Your task to perform on an android device: Show me productivity apps on the Play Store Image 0: 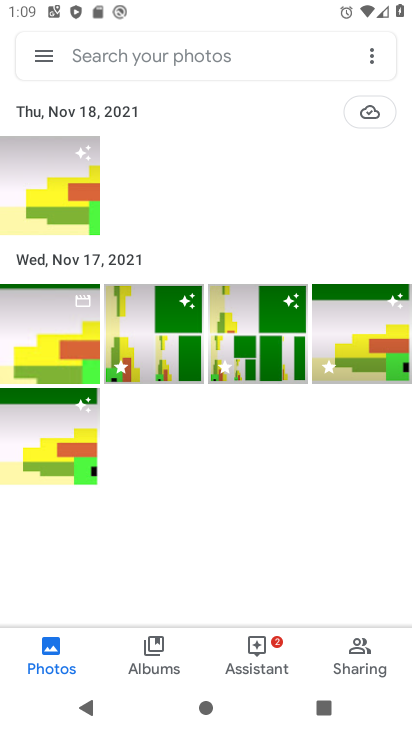
Step 0: press home button
Your task to perform on an android device: Show me productivity apps on the Play Store Image 1: 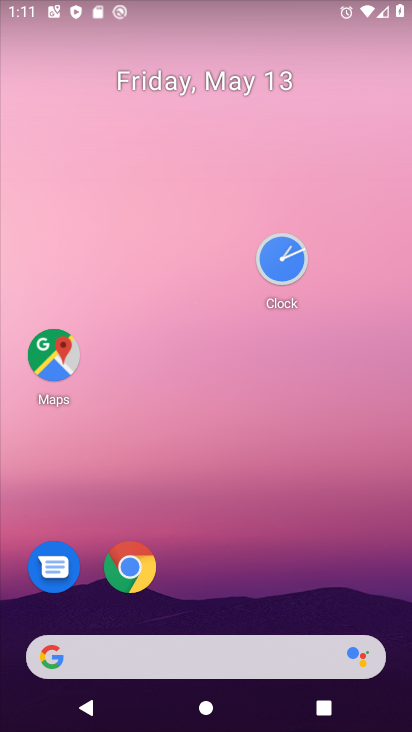
Step 1: drag from (210, 599) to (191, 78)
Your task to perform on an android device: Show me productivity apps on the Play Store Image 2: 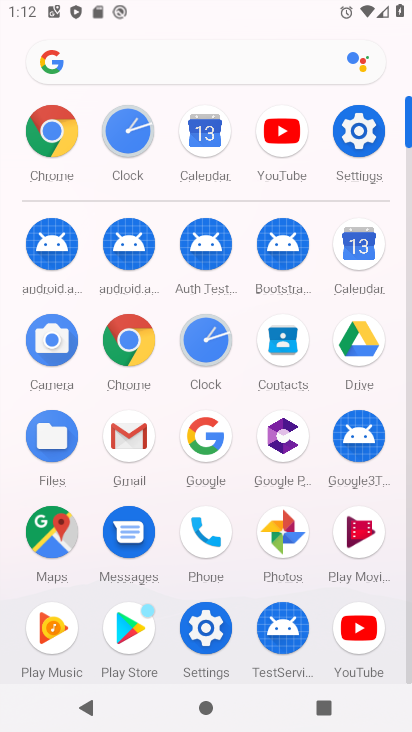
Step 2: click (144, 622)
Your task to perform on an android device: Show me productivity apps on the Play Store Image 3: 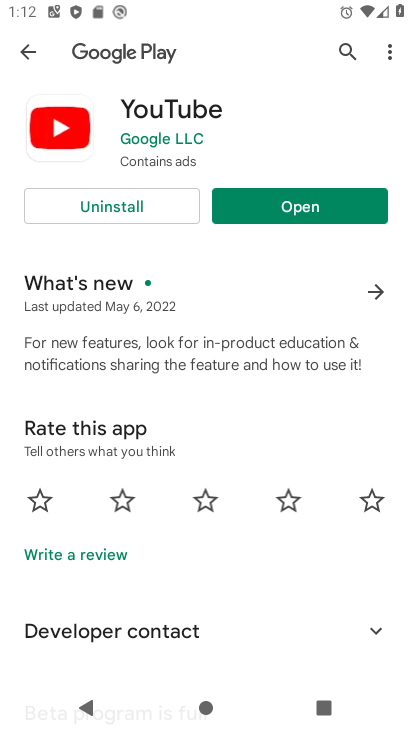
Step 3: click (248, 212)
Your task to perform on an android device: Show me productivity apps on the Play Store Image 4: 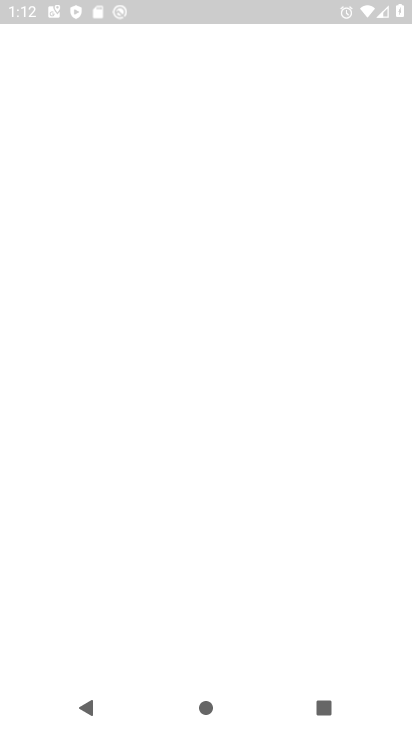
Step 4: click (93, 703)
Your task to perform on an android device: Show me productivity apps on the Play Store Image 5: 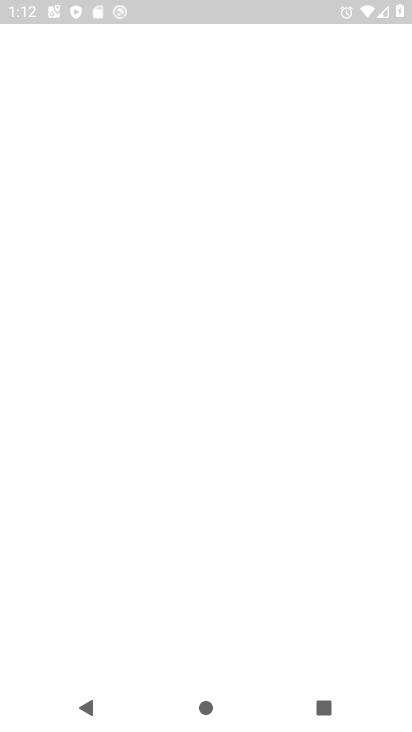
Step 5: click (93, 703)
Your task to perform on an android device: Show me productivity apps on the Play Store Image 6: 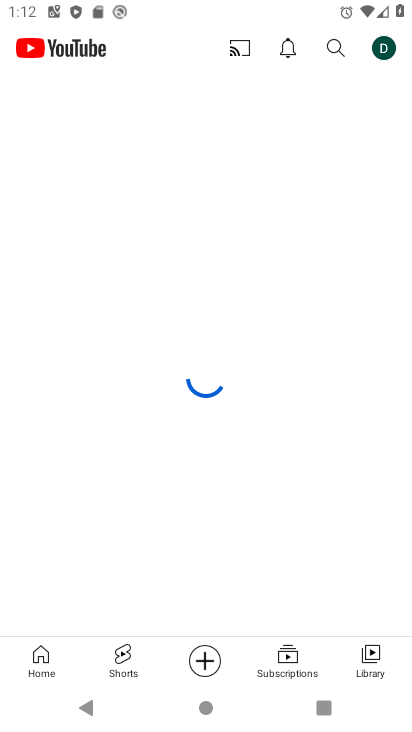
Step 6: press back button
Your task to perform on an android device: Show me productivity apps on the Play Store Image 7: 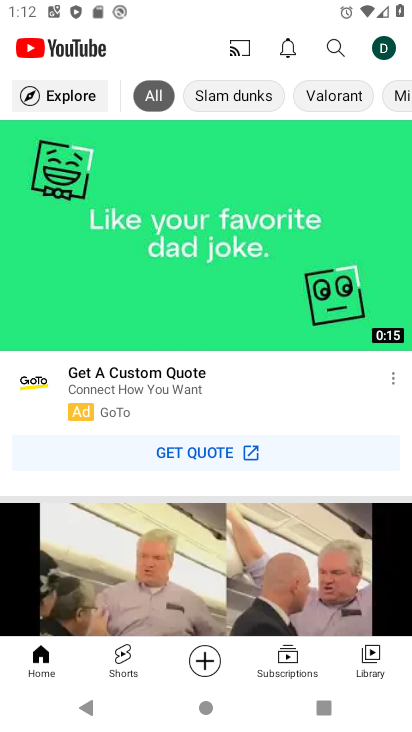
Step 7: press back button
Your task to perform on an android device: Show me productivity apps on the Play Store Image 8: 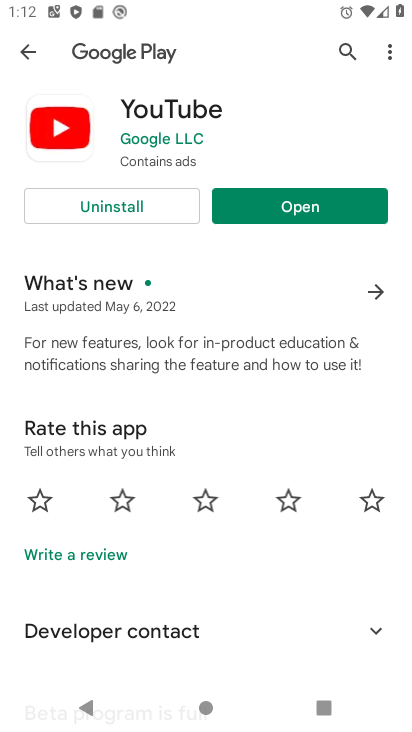
Step 8: click (24, 56)
Your task to perform on an android device: Show me productivity apps on the Play Store Image 9: 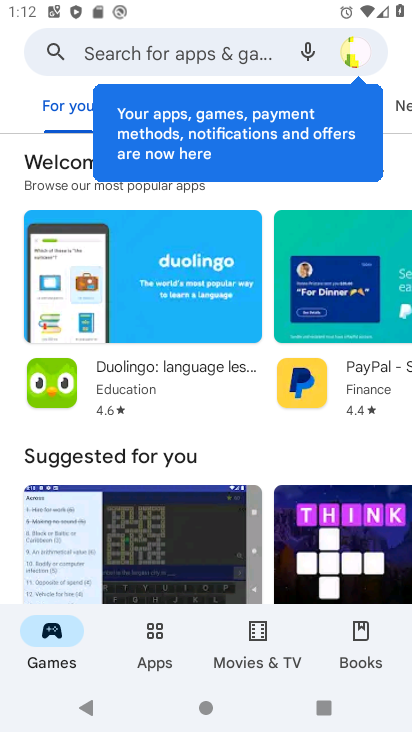
Step 9: click (149, 629)
Your task to perform on an android device: Show me productivity apps on the Play Store Image 10: 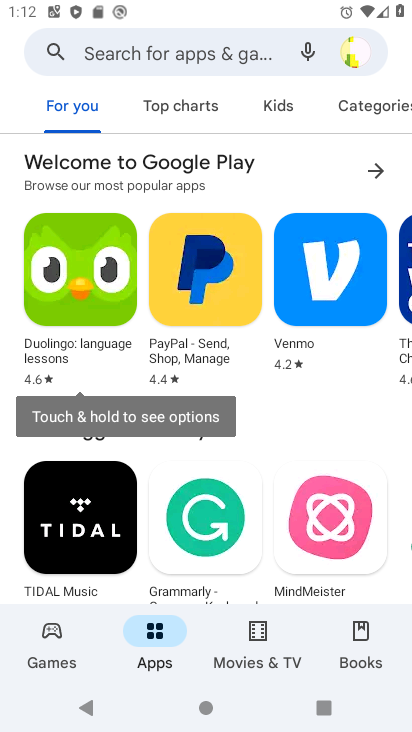
Step 10: click (179, 107)
Your task to perform on an android device: Show me productivity apps on the Play Store Image 11: 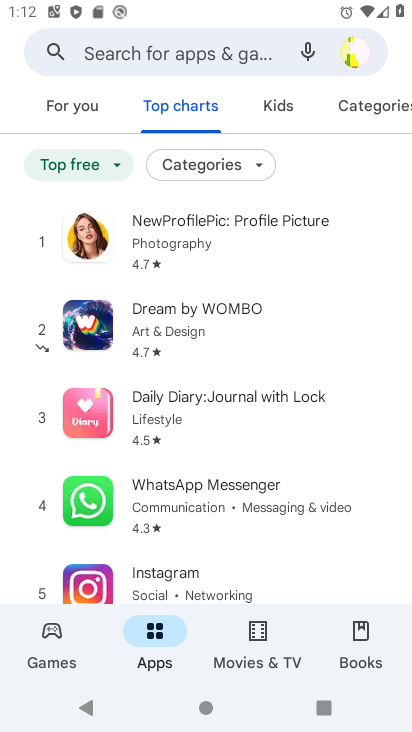
Step 11: click (228, 165)
Your task to perform on an android device: Show me productivity apps on the Play Store Image 12: 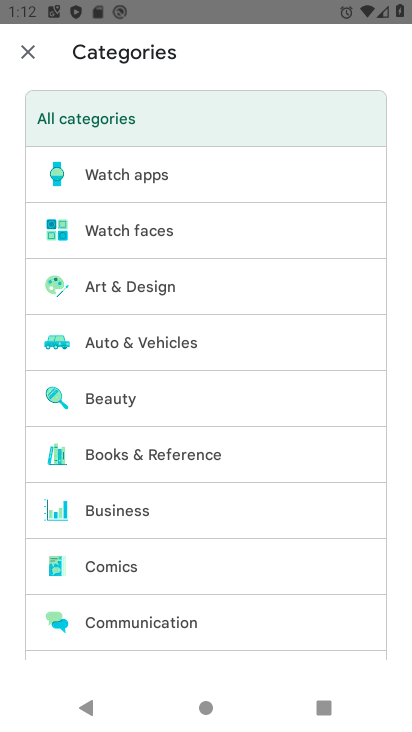
Step 12: drag from (175, 583) to (225, 173)
Your task to perform on an android device: Show me productivity apps on the Play Store Image 13: 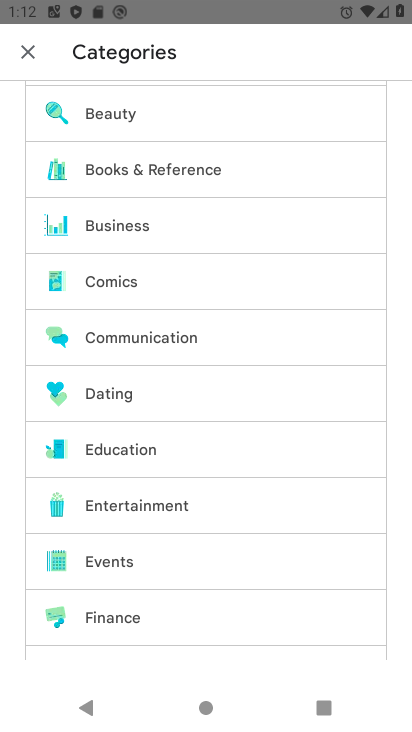
Step 13: drag from (222, 616) to (242, 230)
Your task to perform on an android device: Show me productivity apps on the Play Store Image 14: 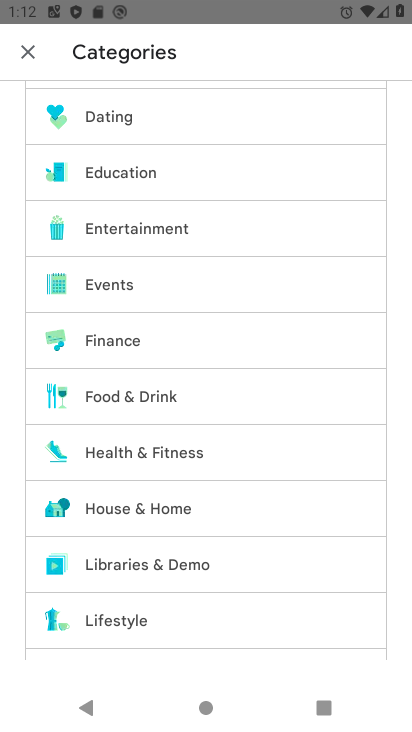
Step 14: drag from (228, 572) to (234, 257)
Your task to perform on an android device: Show me productivity apps on the Play Store Image 15: 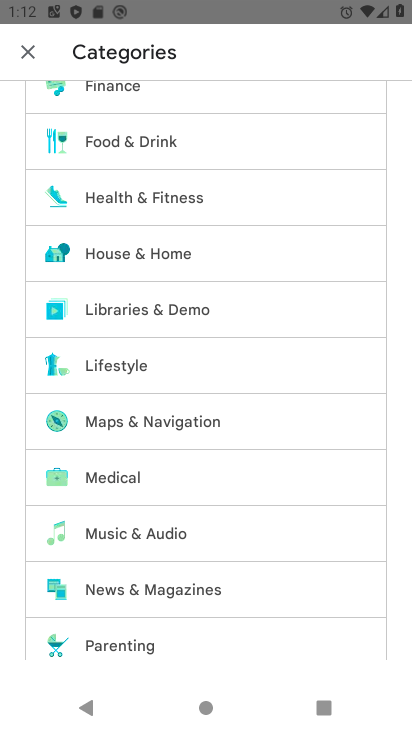
Step 15: drag from (224, 575) to (237, 366)
Your task to perform on an android device: Show me productivity apps on the Play Store Image 16: 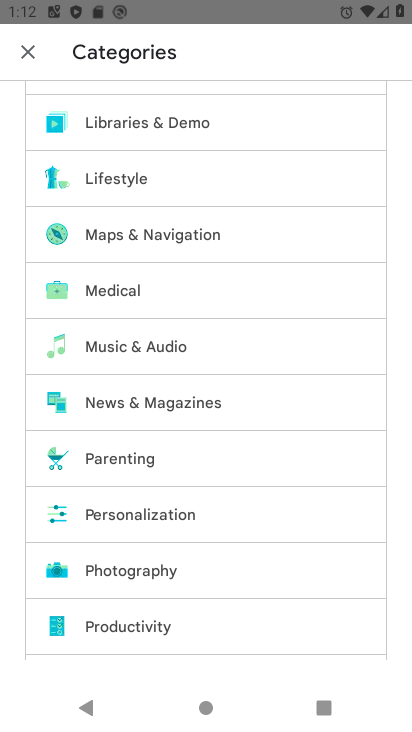
Step 16: click (212, 613)
Your task to perform on an android device: Show me productivity apps on the Play Store Image 17: 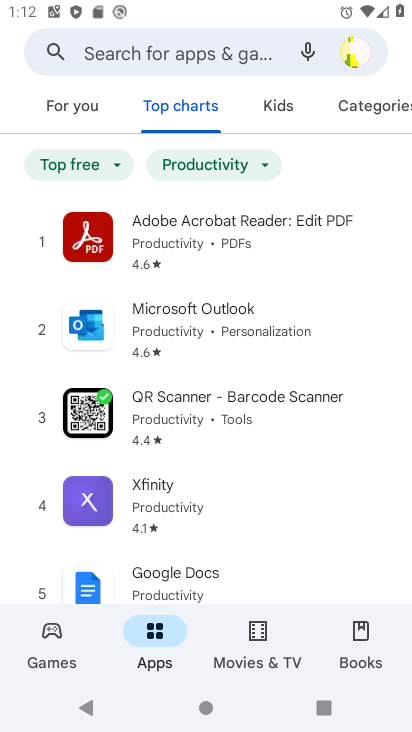
Step 17: task complete